Your task to perform on an android device: all mails in gmail Image 0: 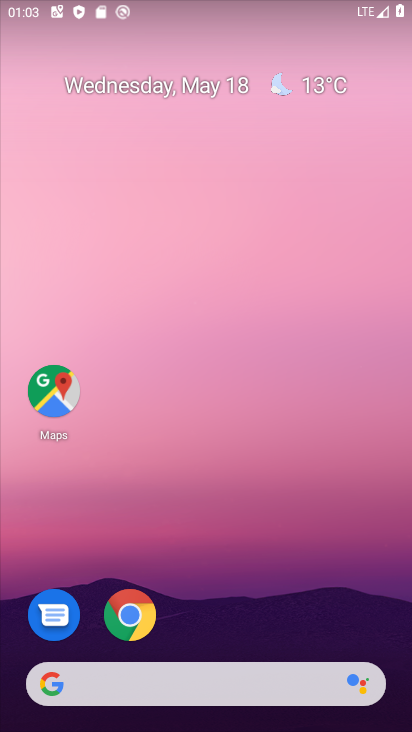
Step 0: drag from (204, 678) to (281, 191)
Your task to perform on an android device: all mails in gmail Image 1: 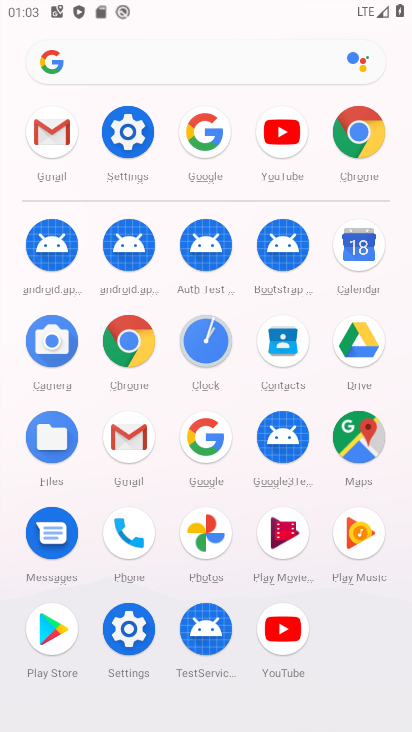
Step 1: click (49, 141)
Your task to perform on an android device: all mails in gmail Image 2: 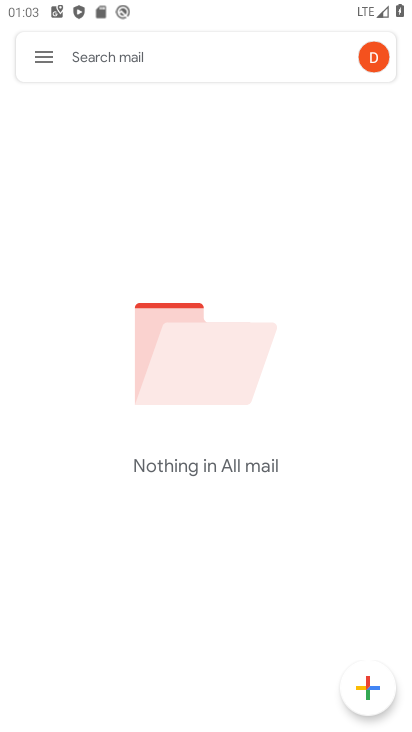
Step 2: task complete